Your task to perform on an android device: toggle translation in the chrome app Image 0: 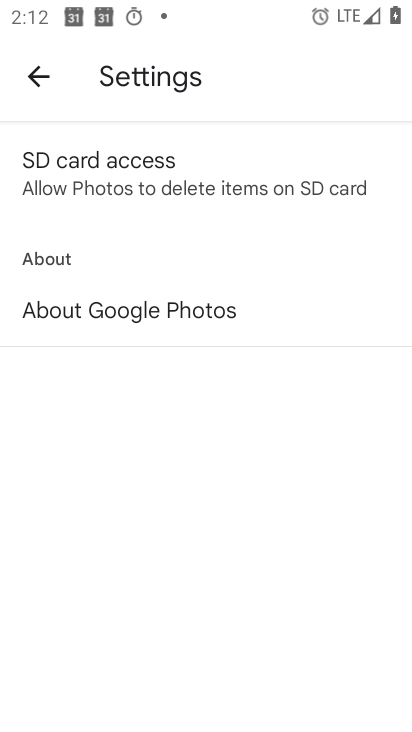
Step 0: press home button
Your task to perform on an android device: toggle translation in the chrome app Image 1: 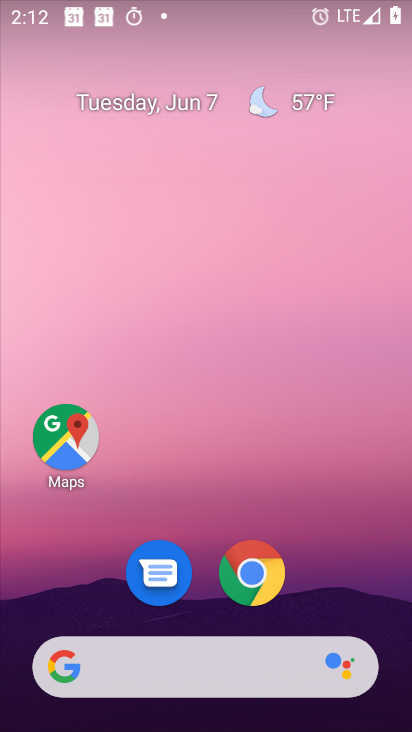
Step 1: click (251, 579)
Your task to perform on an android device: toggle translation in the chrome app Image 2: 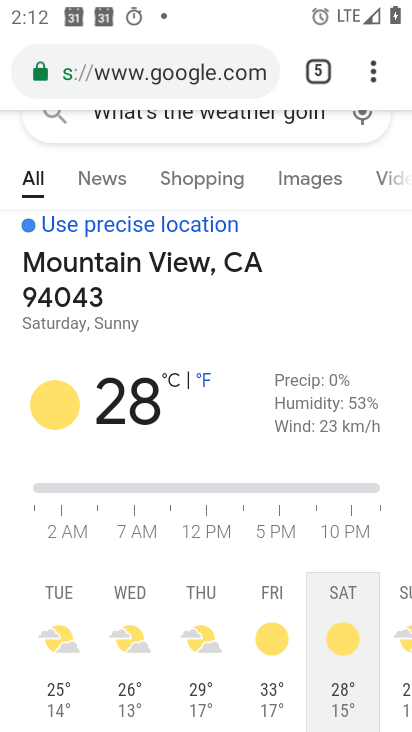
Step 2: drag from (371, 75) to (154, 578)
Your task to perform on an android device: toggle translation in the chrome app Image 3: 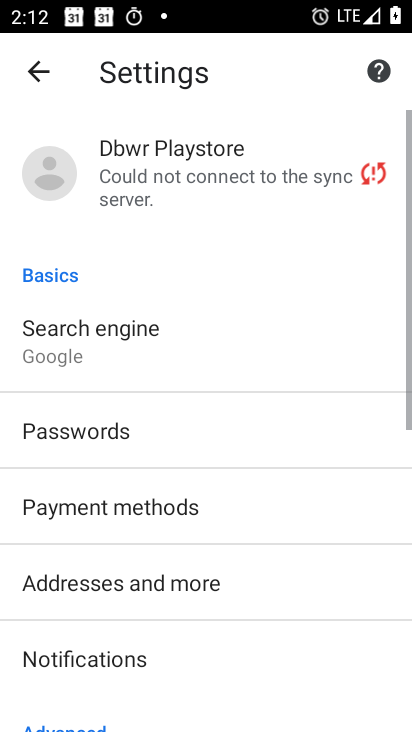
Step 3: drag from (188, 689) to (285, 138)
Your task to perform on an android device: toggle translation in the chrome app Image 4: 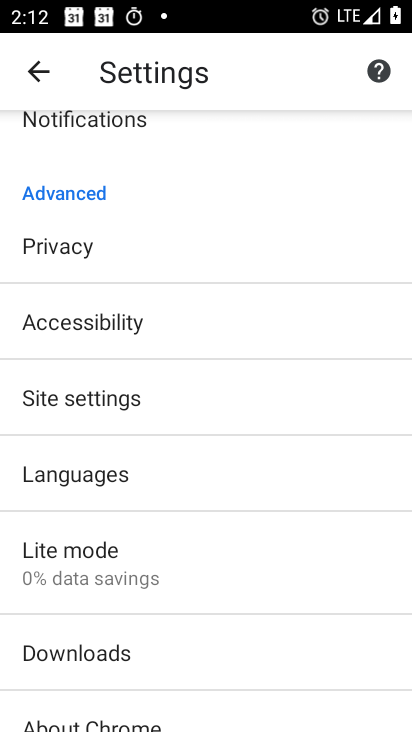
Step 4: click (128, 479)
Your task to perform on an android device: toggle translation in the chrome app Image 5: 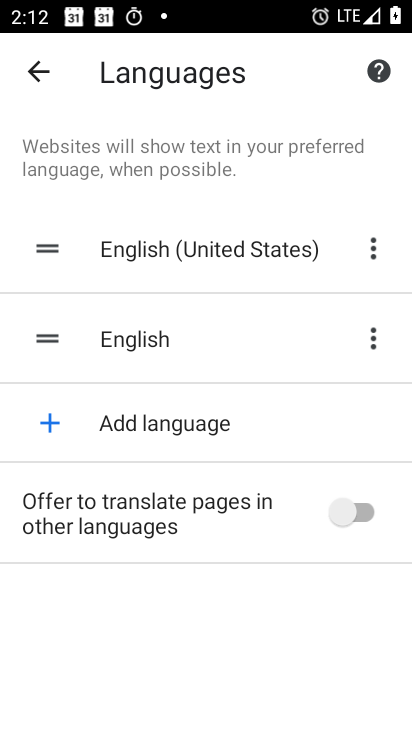
Step 5: click (364, 512)
Your task to perform on an android device: toggle translation in the chrome app Image 6: 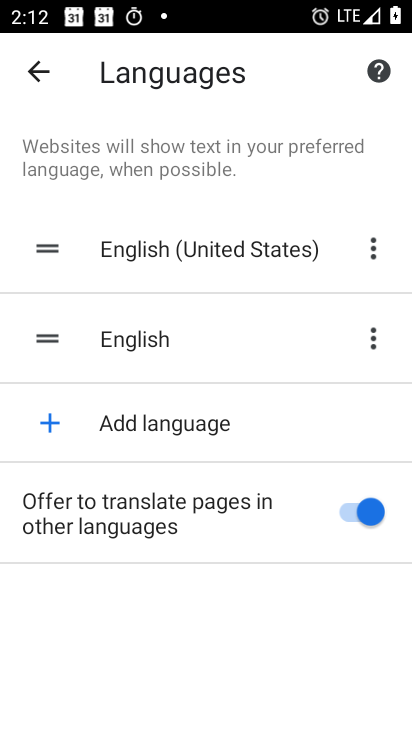
Step 6: task complete